Your task to perform on an android device: Open Google Chrome Image 0: 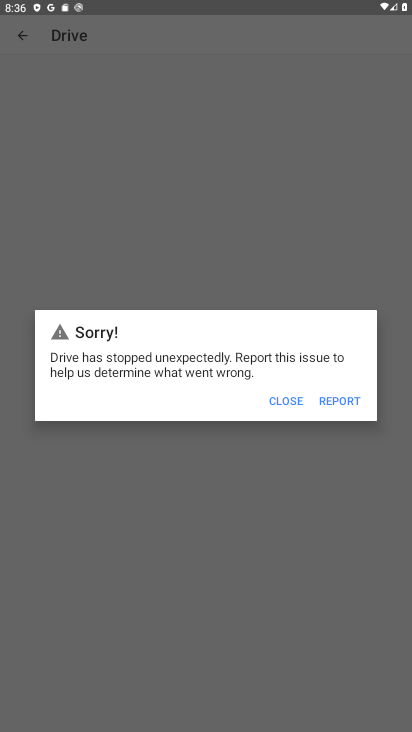
Step 0: press home button
Your task to perform on an android device: Open Google Chrome Image 1: 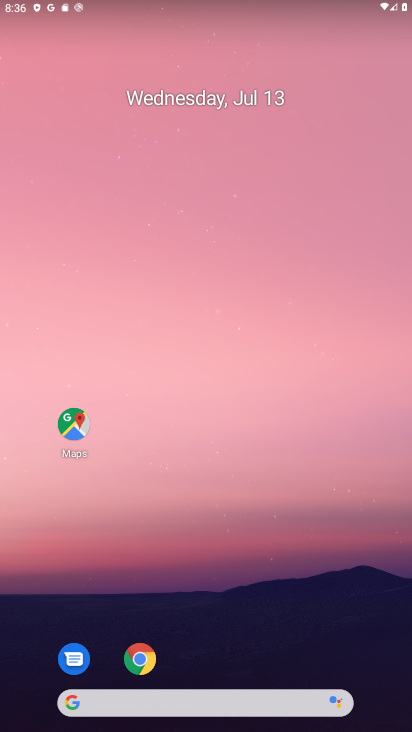
Step 1: click (139, 668)
Your task to perform on an android device: Open Google Chrome Image 2: 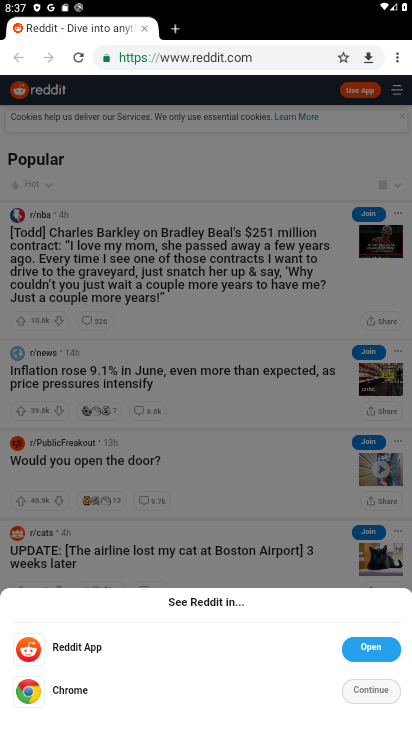
Step 2: task complete